Your task to perform on an android device: Show me recent news Image 0: 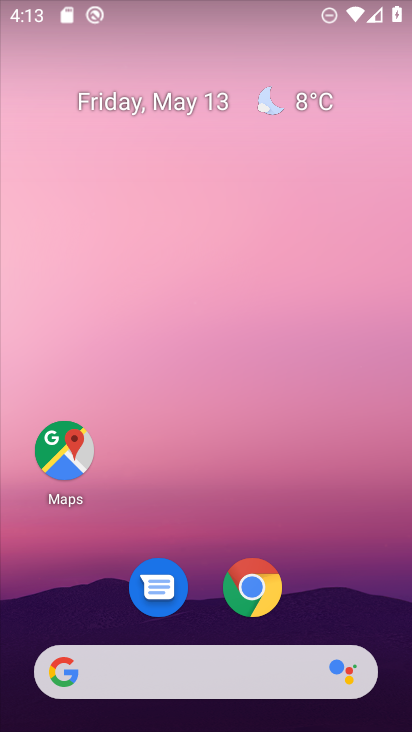
Step 0: drag from (192, 623) to (213, 313)
Your task to perform on an android device: Show me recent news Image 1: 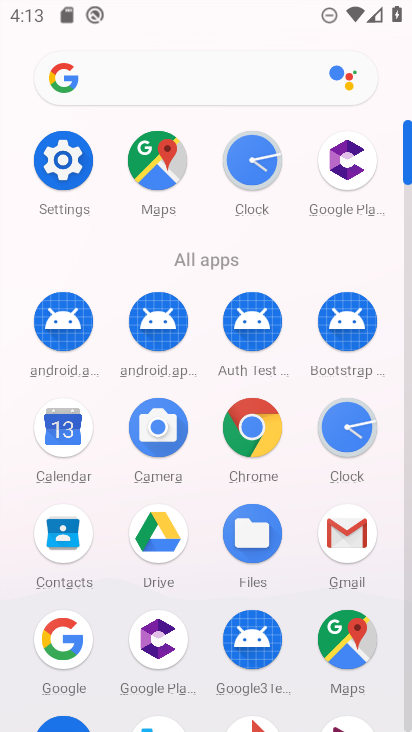
Step 1: click (76, 620)
Your task to perform on an android device: Show me recent news Image 2: 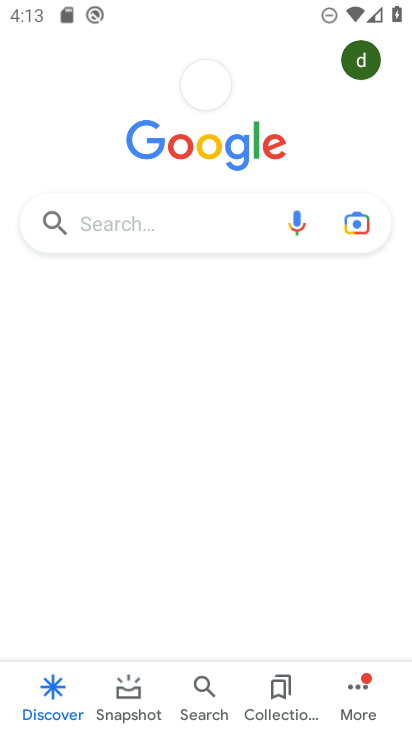
Step 2: click (171, 216)
Your task to perform on an android device: Show me recent news Image 3: 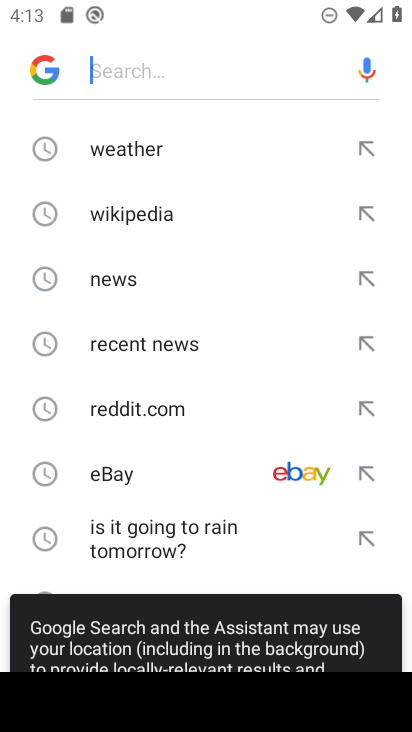
Step 3: click (130, 288)
Your task to perform on an android device: Show me recent news Image 4: 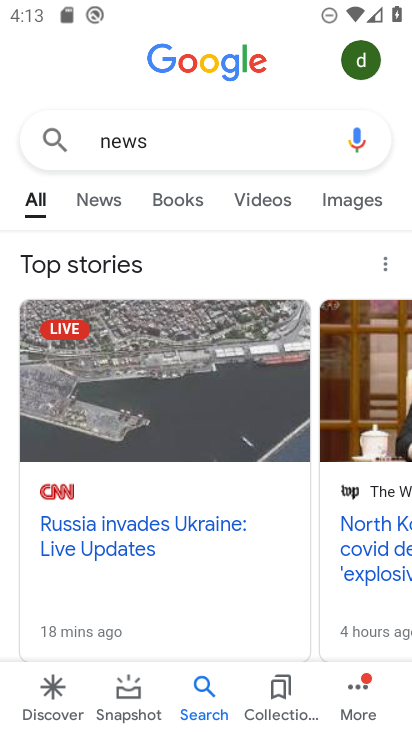
Step 4: click (103, 210)
Your task to perform on an android device: Show me recent news Image 5: 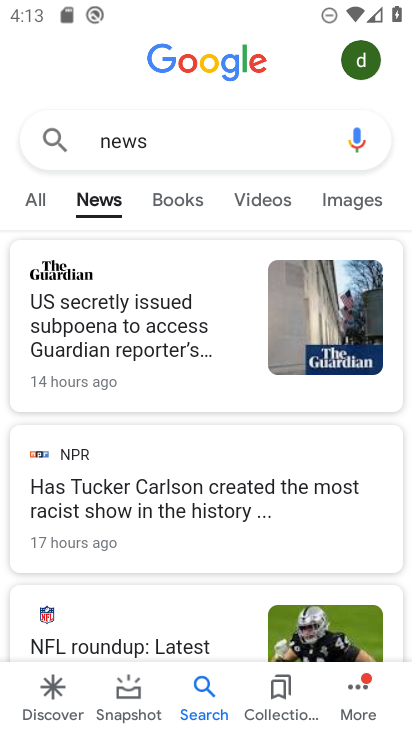
Step 5: task complete